Your task to perform on an android device: Go to Yahoo.com Image 0: 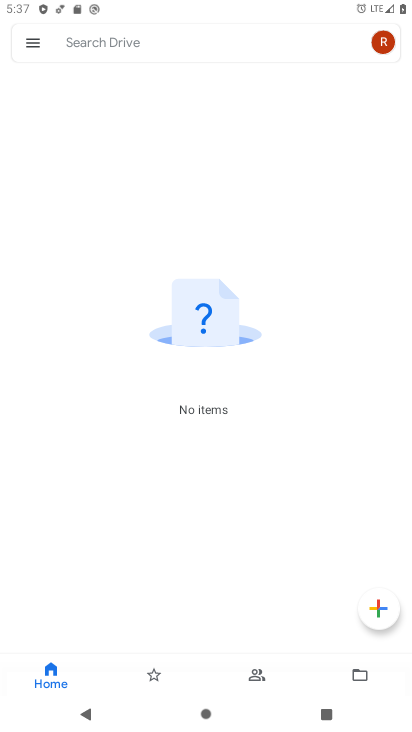
Step 0: press back button
Your task to perform on an android device: Go to Yahoo.com Image 1: 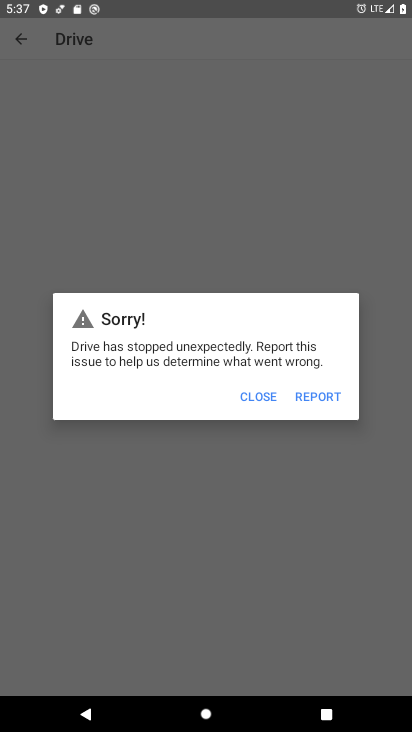
Step 1: press home button
Your task to perform on an android device: Go to Yahoo.com Image 2: 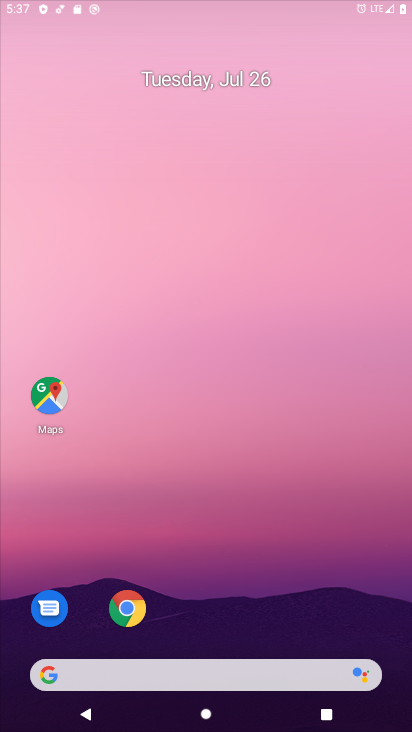
Step 2: drag from (371, 590) to (203, 50)
Your task to perform on an android device: Go to Yahoo.com Image 3: 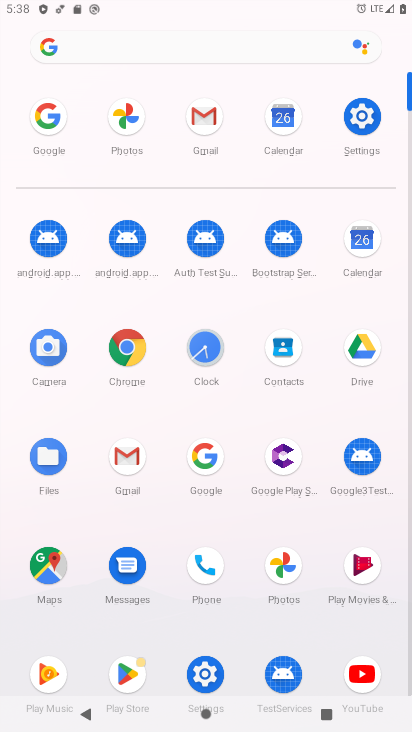
Step 3: click (203, 466)
Your task to perform on an android device: Go to Yahoo.com Image 4: 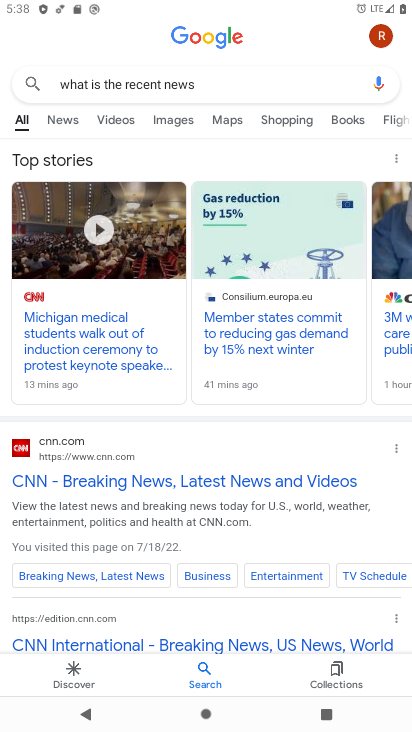
Step 4: press back button
Your task to perform on an android device: Go to Yahoo.com Image 5: 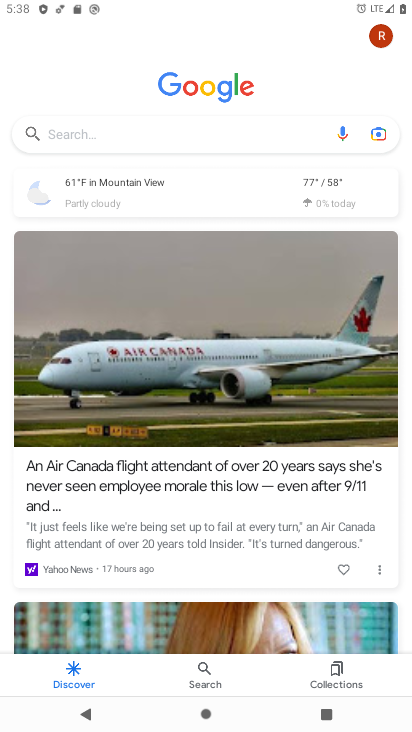
Step 5: click (100, 131)
Your task to perform on an android device: Go to Yahoo.com Image 6: 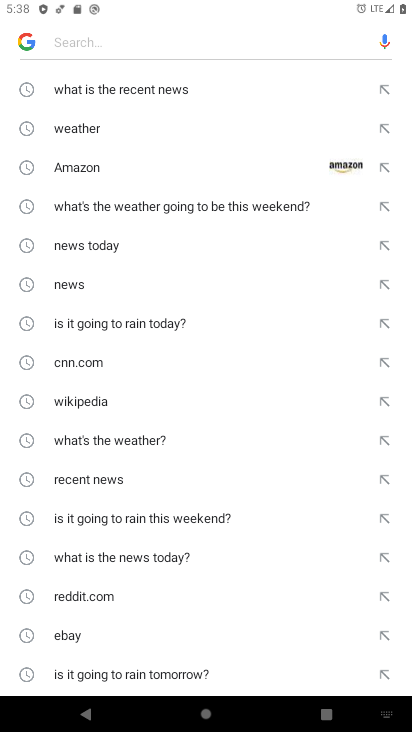
Step 6: drag from (104, 588) to (138, 95)
Your task to perform on an android device: Go to Yahoo.com Image 7: 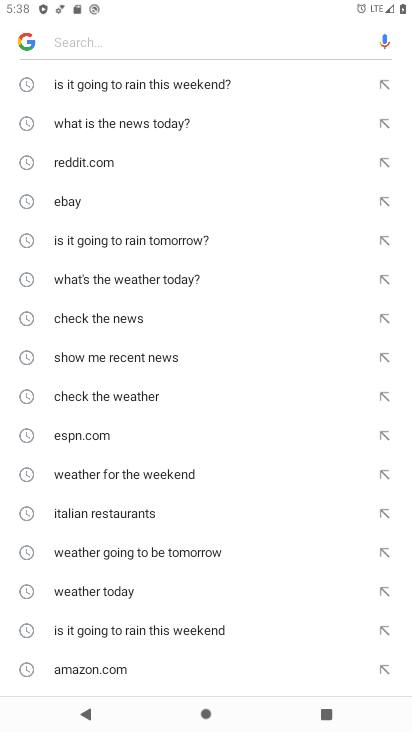
Step 7: drag from (148, 617) to (165, 107)
Your task to perform on an android device: Go to Yahoo.com Image 8: 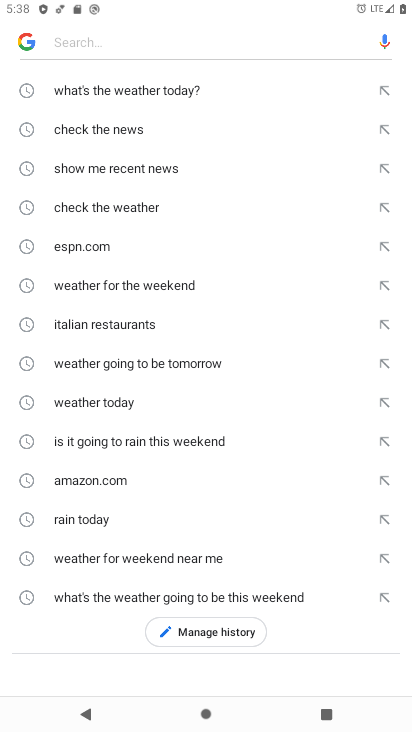
Step 8: type "Yahoo.com"
Your task to perform on an android device: Go to Yahoo.com Image 9: 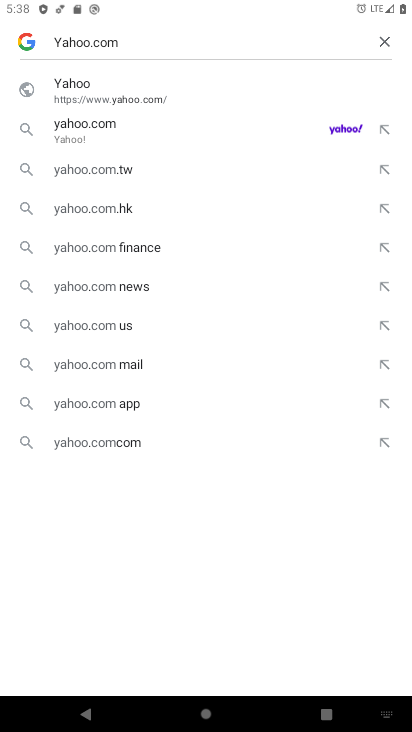
Step 9: click (89, 138)
Your task to perform on an android device: Go to Yahoo.com Image 10: 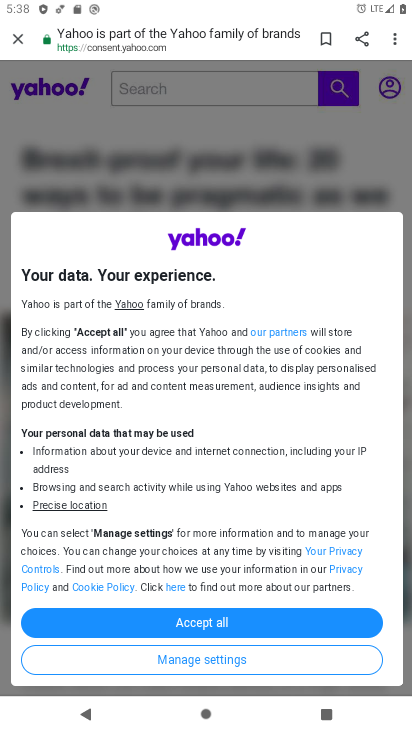
Step 10: task complete